Your task to perform on an android device: Search for "corsair k70" on bestbuy.com, select the first entry, add it to the cart, then select checkout. Image 0: 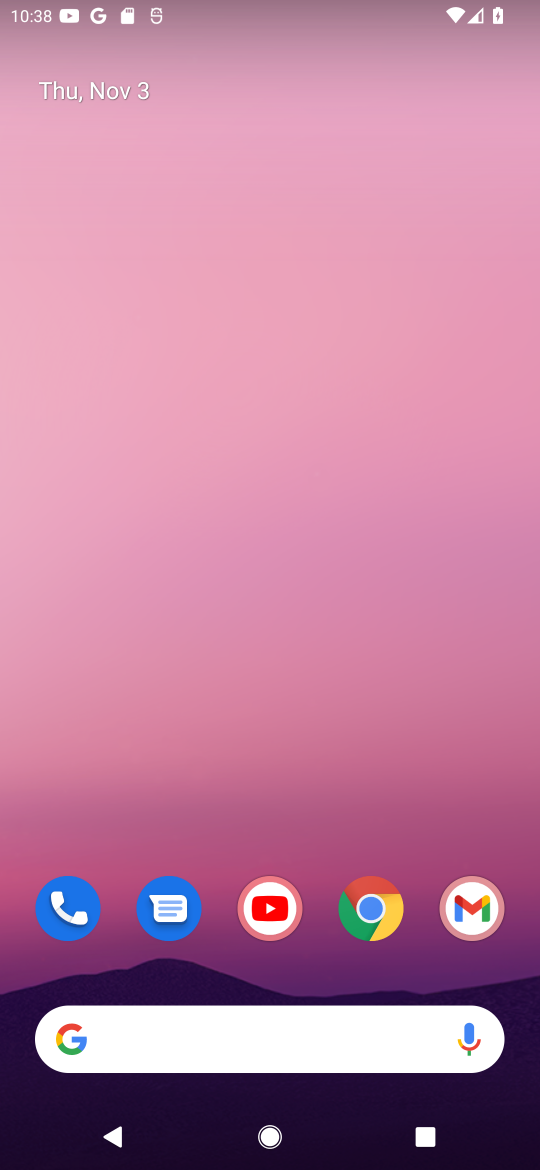
Step 0: click (373, 919)
Your task to perform on an android device: Search for "corsair k70" on bestbuy.com, select the first entry, add it to the cart, then select checkout. Image 1: 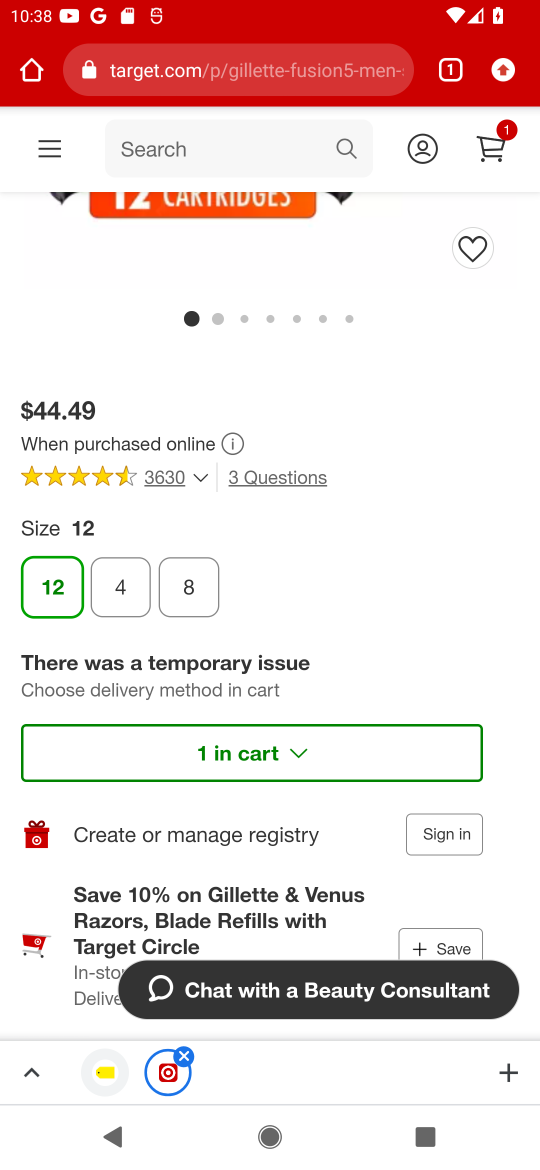
Step 1: click (286, 55)
Your task to perform on an android device: Search for "corsair k70" on bestbuy.com, select the first entry, add it to the cart, then select checkout. Image 2: 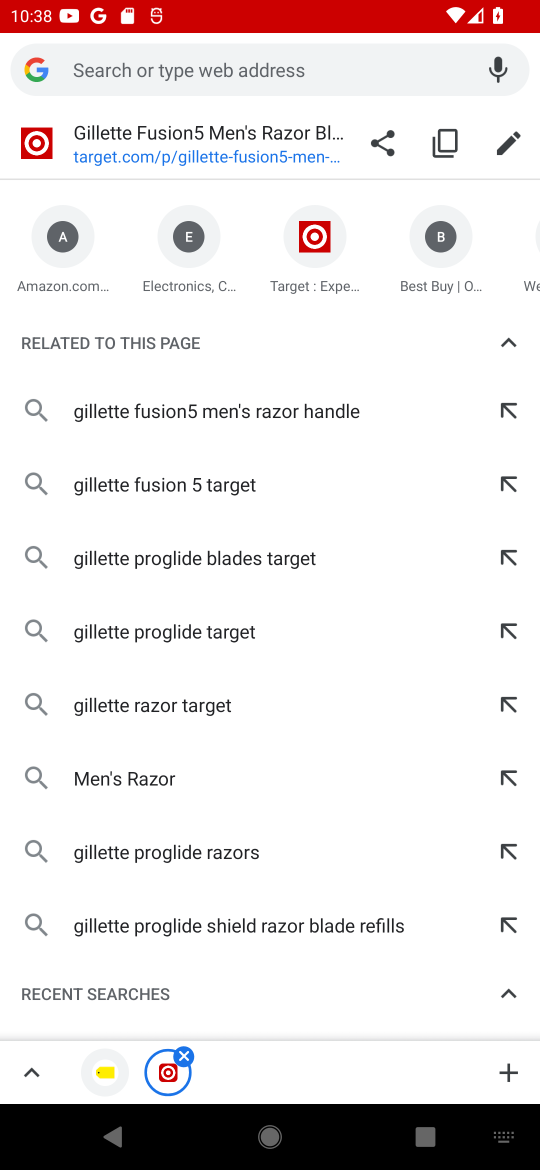
Step 2: click (445, 233)
Your task to perform on an android device: Search for "corsair k70" on bestbuy.com, select the first entry, add it to the cart, then select checkout. Image 3: 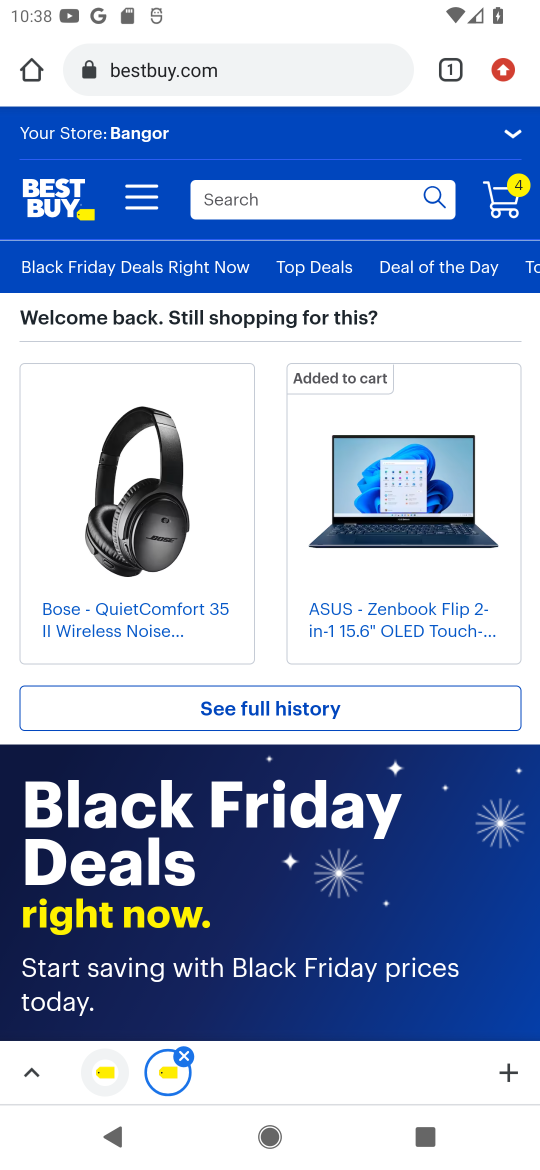
Step 3: click (282, 190)
Your task to perform on an android device: Search for "corsair k70" on bestbuy.com, select the first entry, add it to the cart, then select checkout. Image 4: 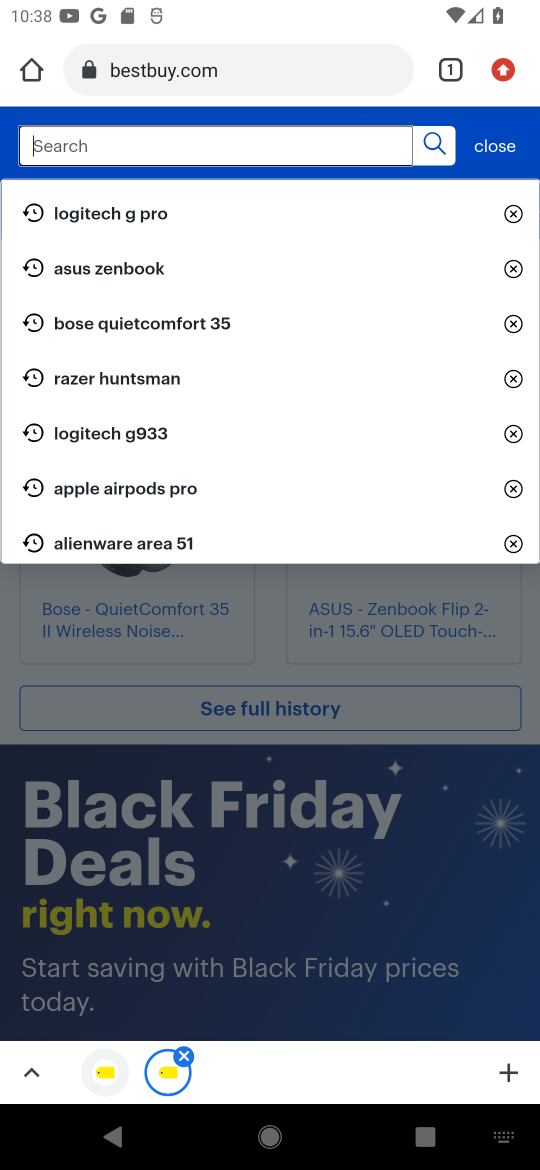
Step 4: type "corsair k70"
Your task to perform on an android device: Search for "corsair k70" on bestbuy.com, select the first entry, add it to the cart, then select checkout. Image 5: 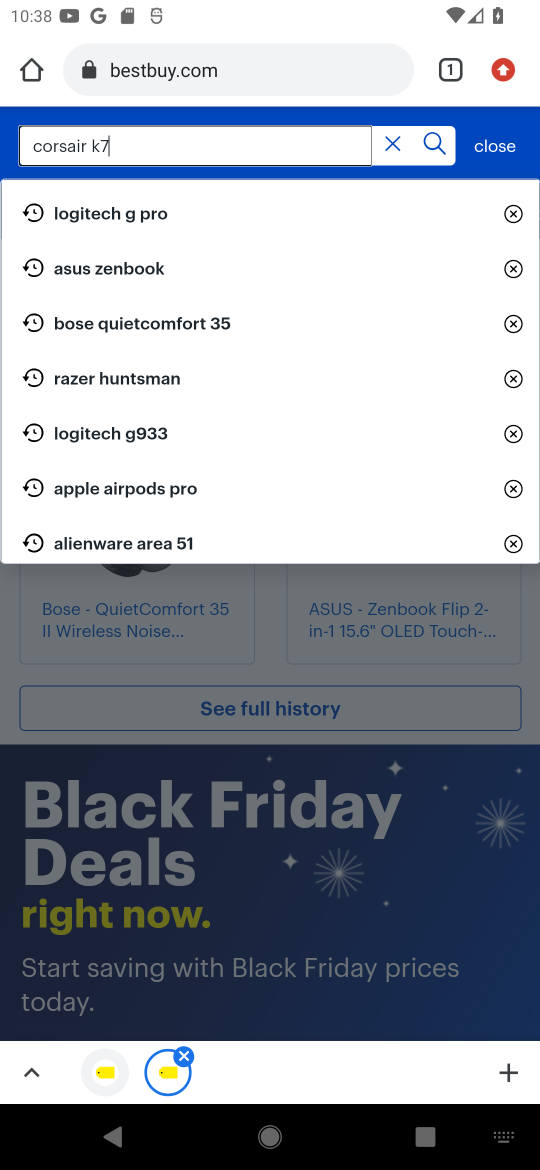
Step 5: press enter
Your task to perform on an android device: Search for "corsair k70" on bestbuy.com, select the first entry, add it to the cart, then select checkout. Image 6: 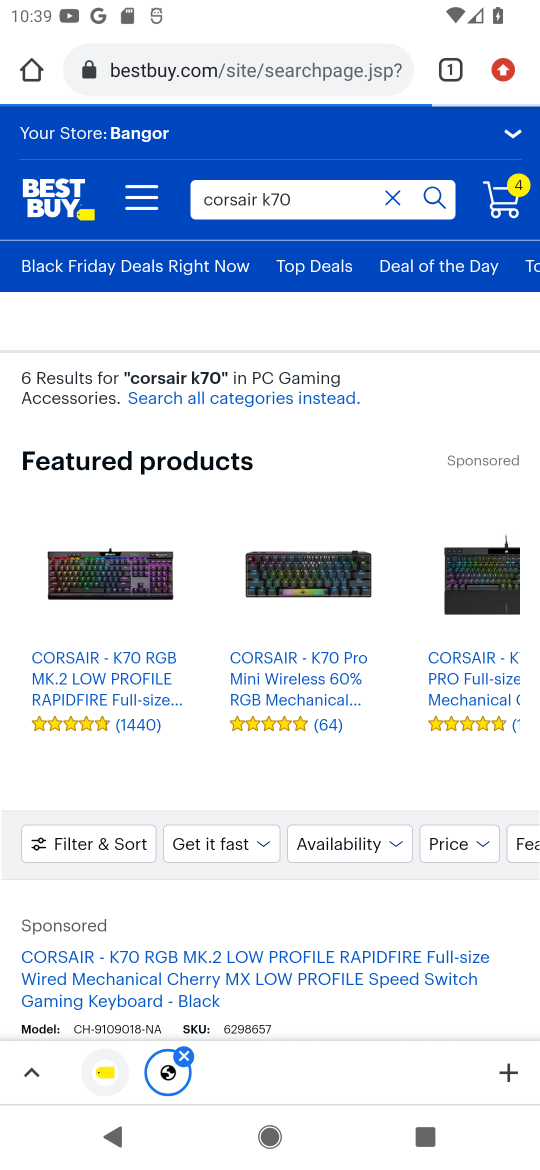
Step 6: drag from (258, 923) to (280, 536)
Your task to perform on an android device: Search for "corsair k70" on bestbuy.com, select the first entry, add it to the cart, then select checkout. Image 7: 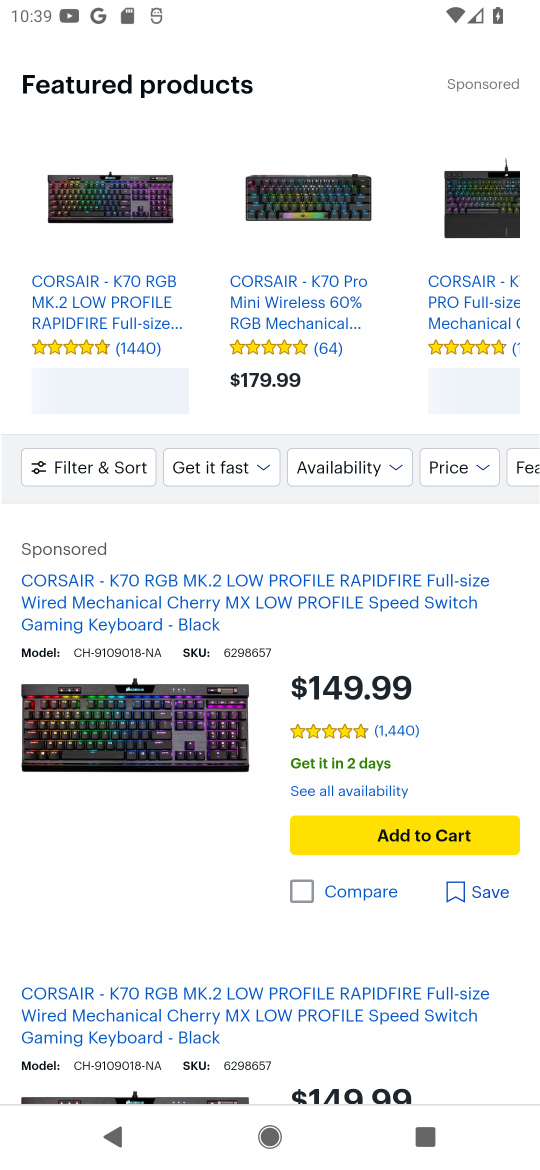
Step 7: click (136, 734)
Your task to perform on an android device: Search for "corsair k70" on bestbuy.com, select the first entry, add it to the cart, then select checkout. Image 8: 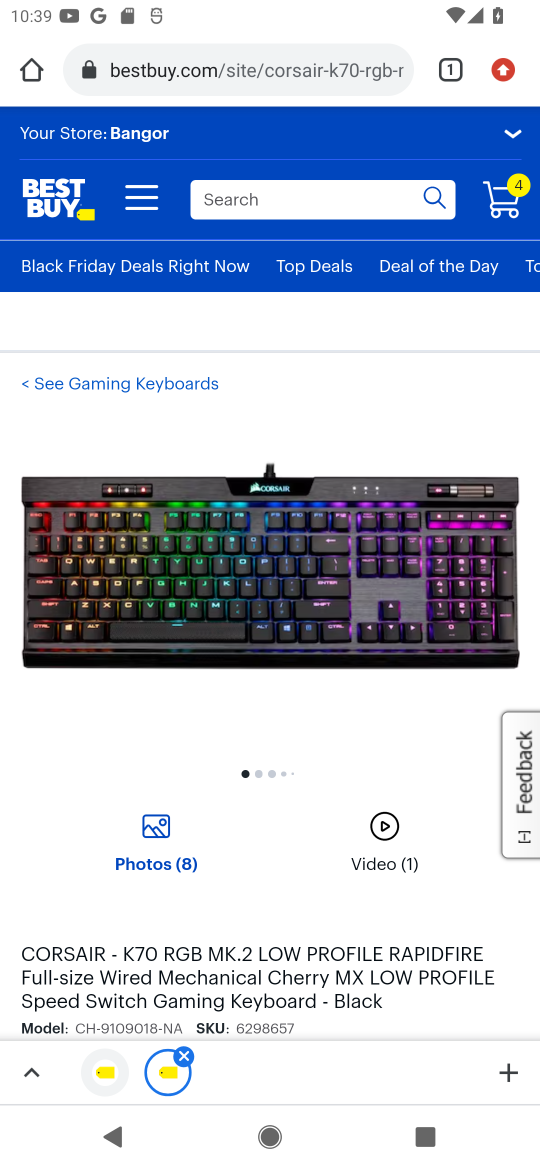
Step 8: drag from (316, 917) to (312, 481)
Your task to perform on an android device: Search for "corsair k70" on bestbuy.com, select the first entry, add it to the cart, then select checkout. Image 9: 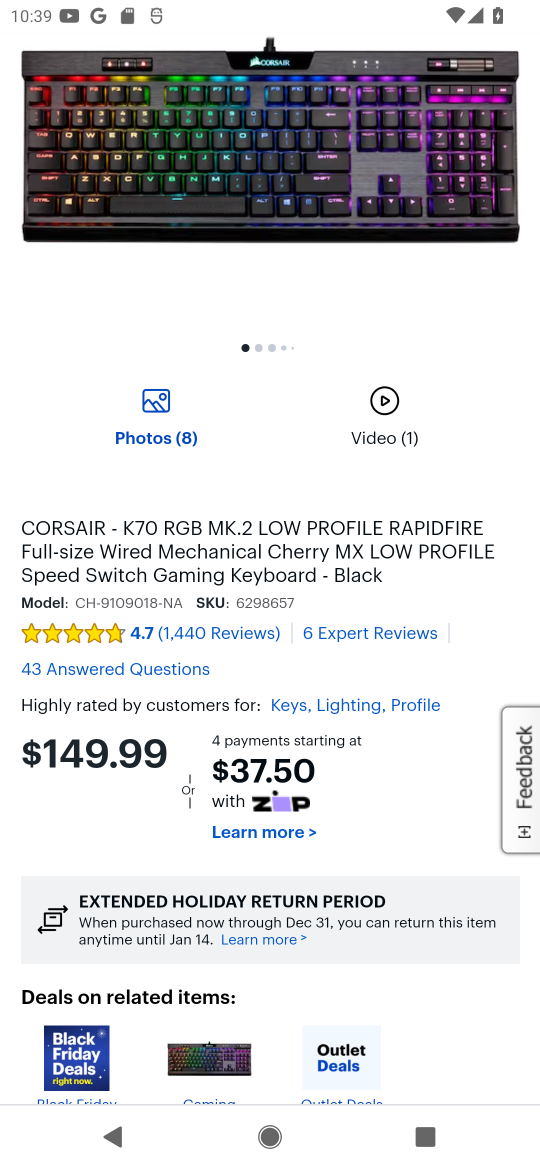
Step 9: drag from (355, 790) to (350, 478)
Your task to perform on an android device: Search for "corsair k70" on bestbuy.com, select the first entry, add it to the cart, then select checkout. Image 10: 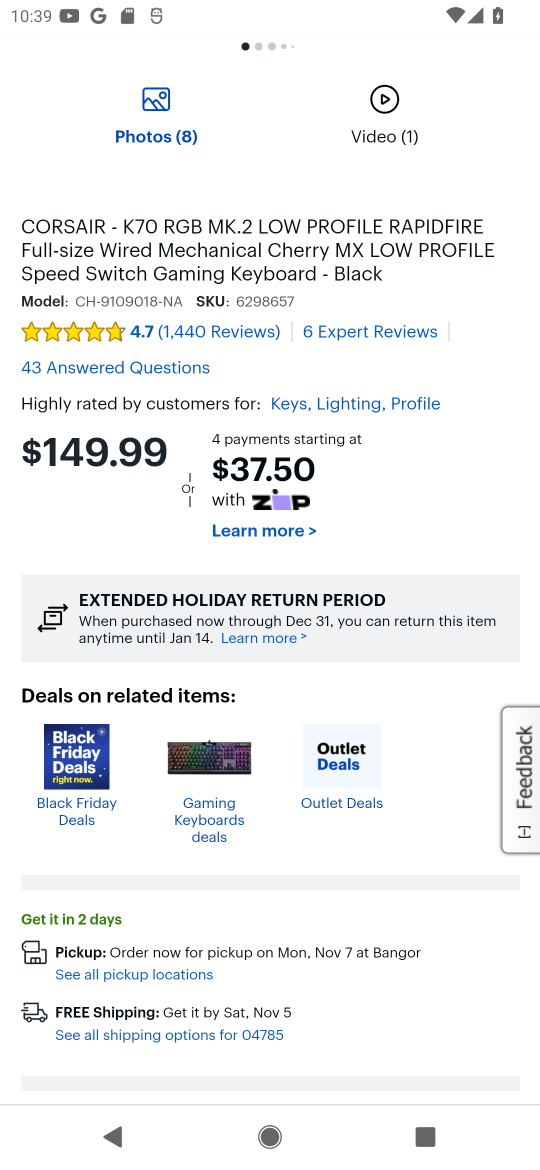
Step 10: drag from (330, 880) to (258, 506)
Your task to perform on an android device: Search for "corsair k70" on bestbuy.com, select the first entry, add it to the cart, then select checkout. Image 11: 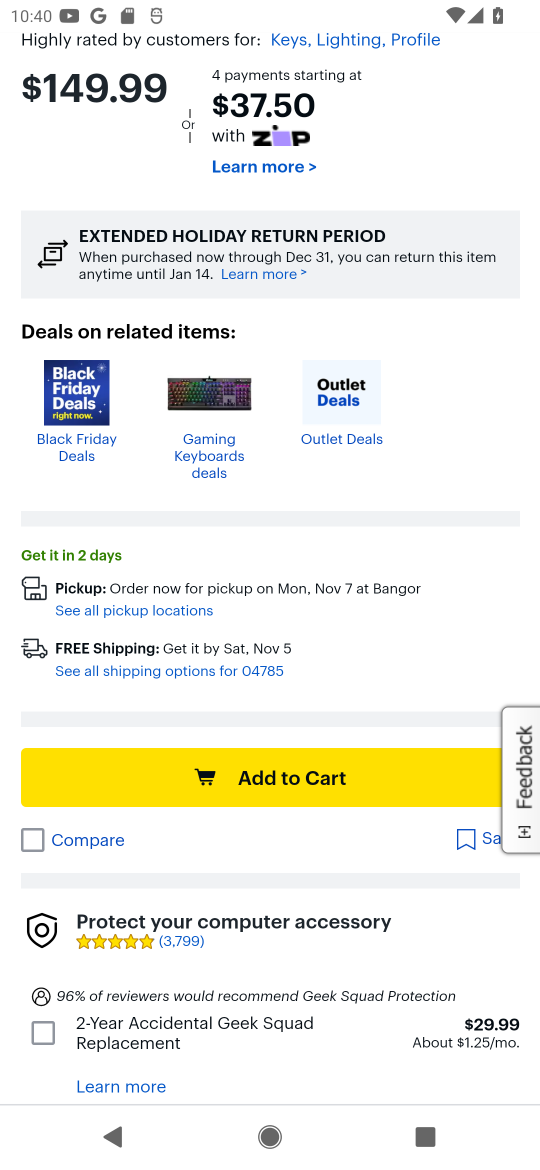
Step 11: click (290, 778)
Your task to perform on an android device: Search for "corsair k70" on bestbuy.com, select the first entry, add it to the cart, then select checkout. Image 12: 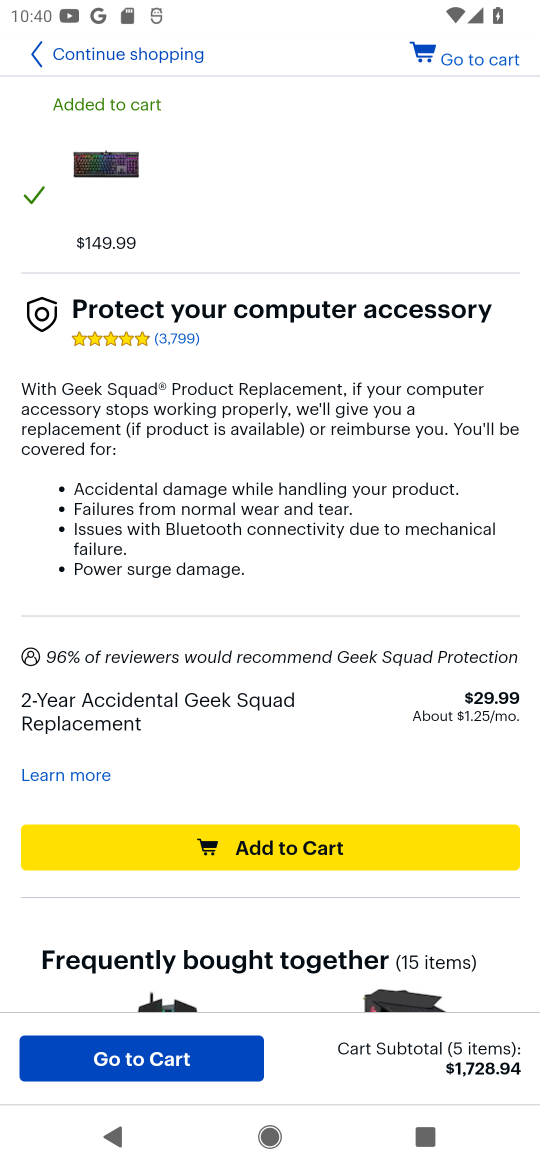
Step 12: click (170, 1063)
Your task to perform on an android device: Search for "corsair k70" on bestbuy.com, select the first entry, add it to the cart, then select checkout. Image 13: 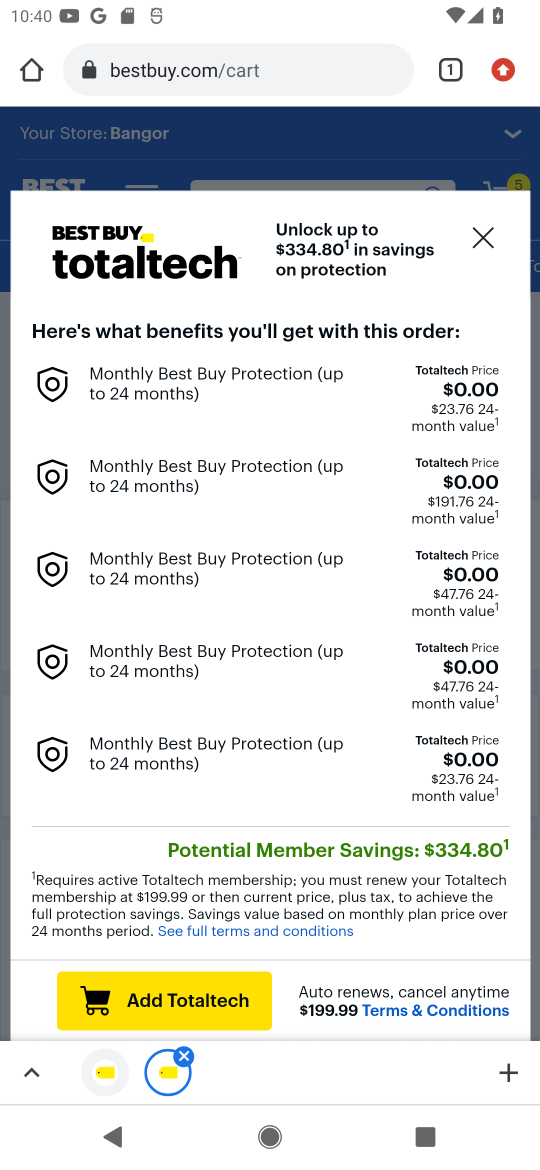
Step 13: click (480, 244)
Your task to perform on an android device: Search for "corsair k70" on bestbuy.com, select the first entry, add it to the cart, then select checkout. Image 14: 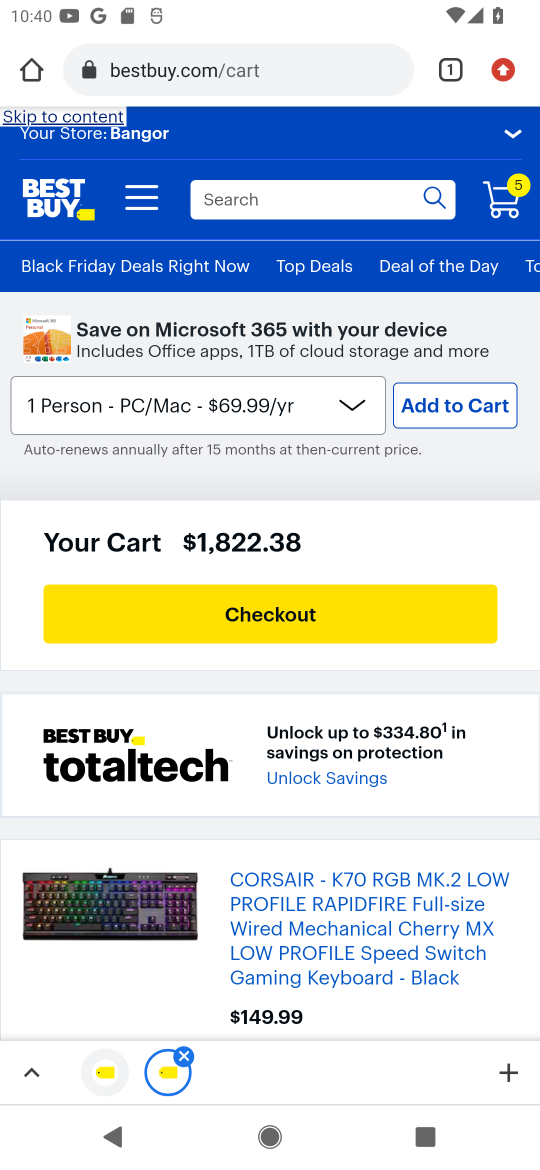
Step 14: click (325, 604)
Your task to perform on an android device: Search for "corsair k70" on bestbuy.com, select the first entry, add it to the cart, then select checkout. Image 15: 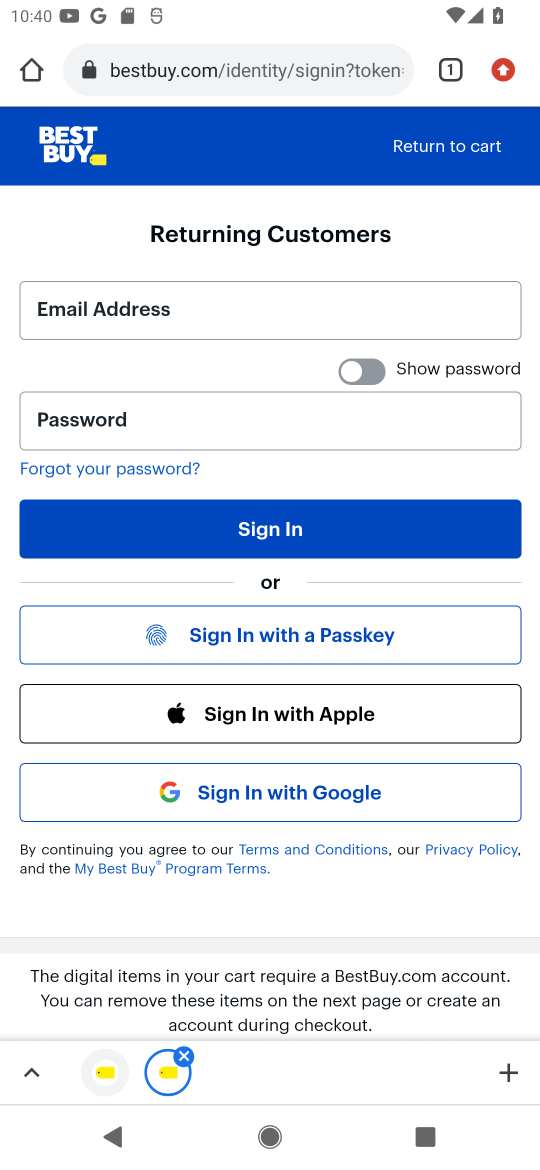
Step 15: task complete